Your task to perform on an android device: turn on data saver in the chrome app Image 0: 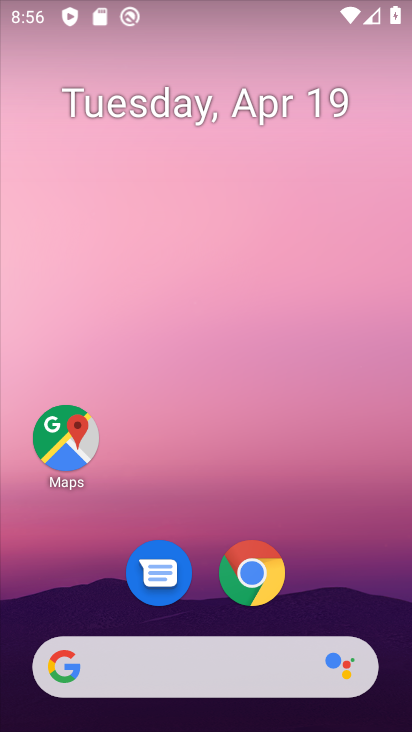
Step 0: click (241, 561)
Your task to perform on an android device: turn on data saver in the chrome app Image 1: 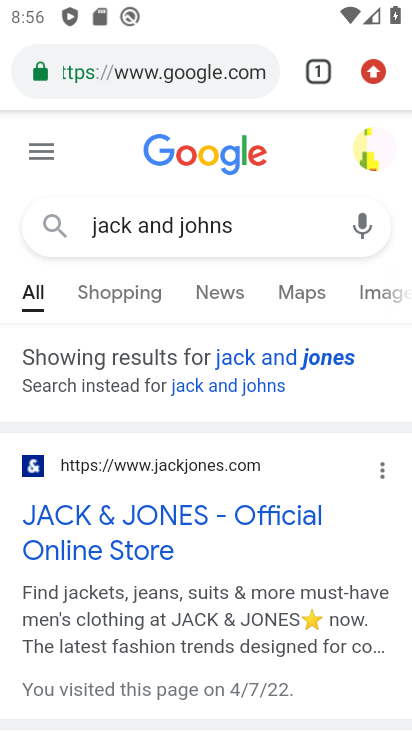
Step 1: click (375, 71)
Your task to perform on an android device: turn on data saver in the chrome app Image 2: 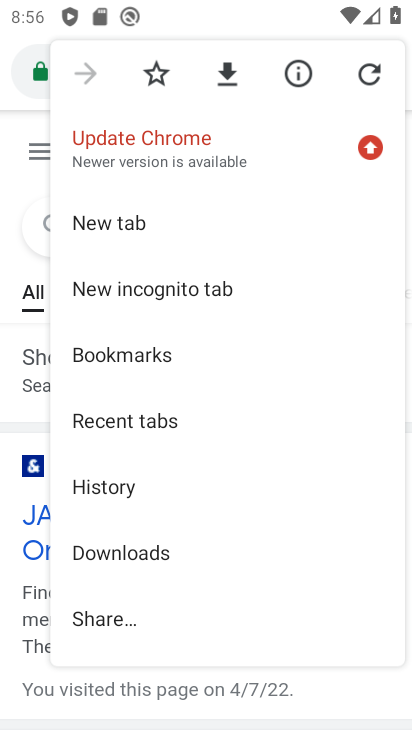
Step 2: drag from (194, 609) to (230, 192)
Your task to perform on an android device: turn on data saver in the chrome app Image 3: 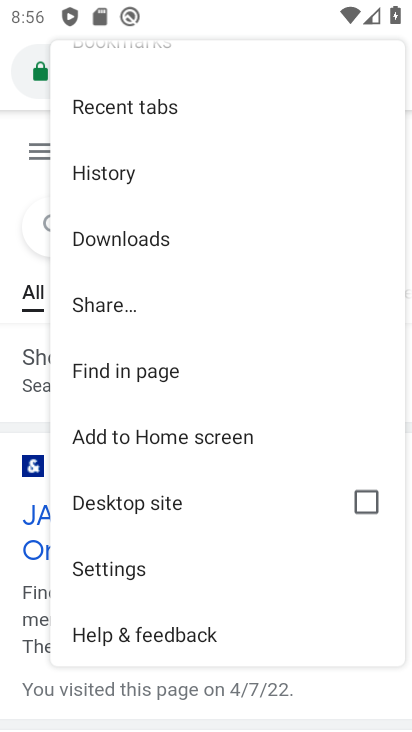
Step 3: click (118, 569)
Your task to perform on an android device: turn on data saver in the chrome app Image 4: 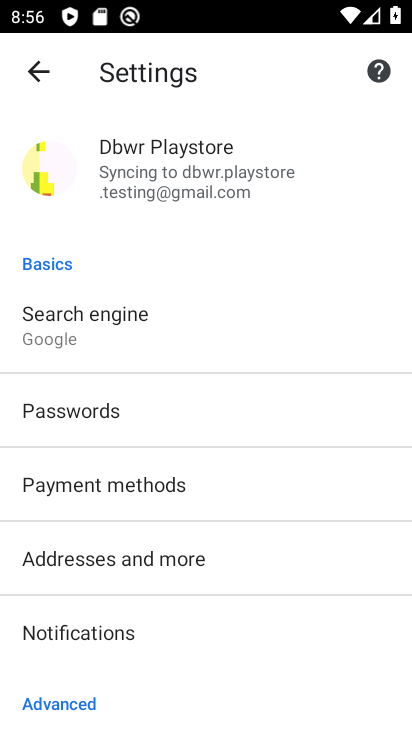
Step 4: drag from (181, 636) to (191, 235)
Your task to perform on an android device: turn on data saver in the chrome app Image 5: 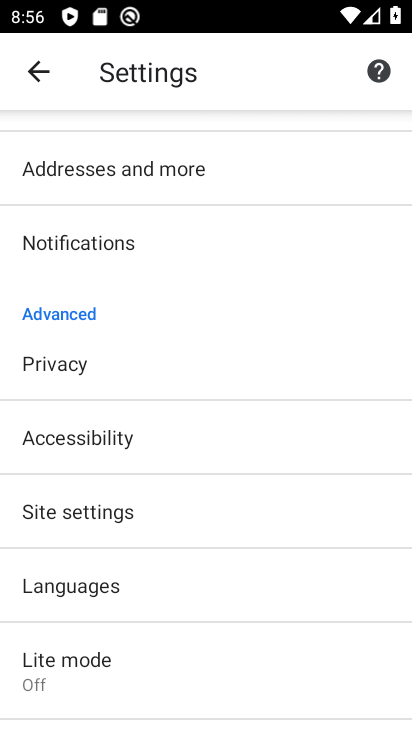
Step 5: click (79, 652)
Your task to perform on an android device: turn on data saver in the chrome app Image 6: 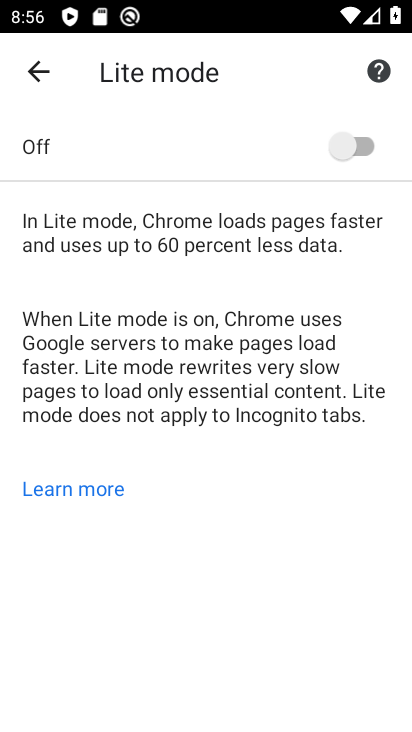
Step 6: click (347, 153)
Your task to perform on an android device: turn on data saver in the chrome app Image 7: 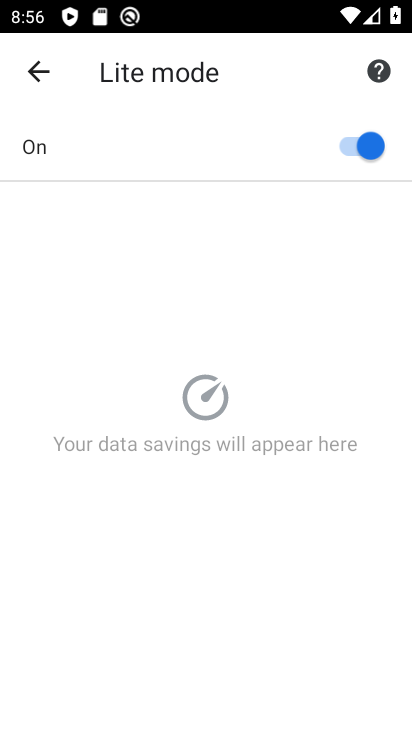
Step 7: task complete